Your task to perform on an android device: change alarm snooze length Image 0: 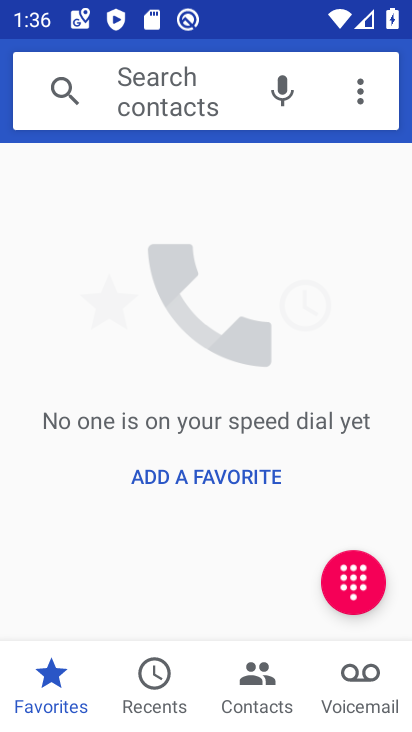
Step 0: press home button
Your task to perform on an android device: change alarm snooze length Image 1: 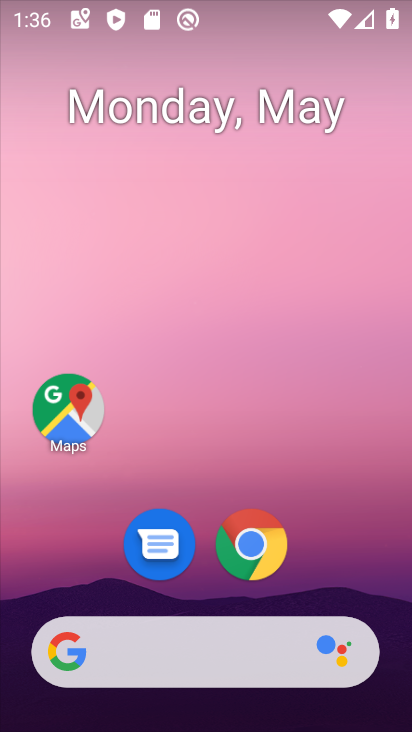
Step 1: drag from (380, 578) to (383, 213)
Your task to perform on an android device: change alarm snooze length Image 2: 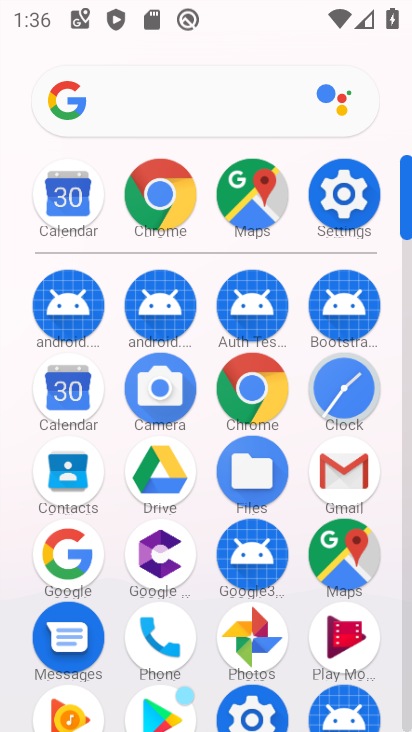
Step 2: click (371, 396)
Your task to perform on an android device: change alarm snooze length Image 3: 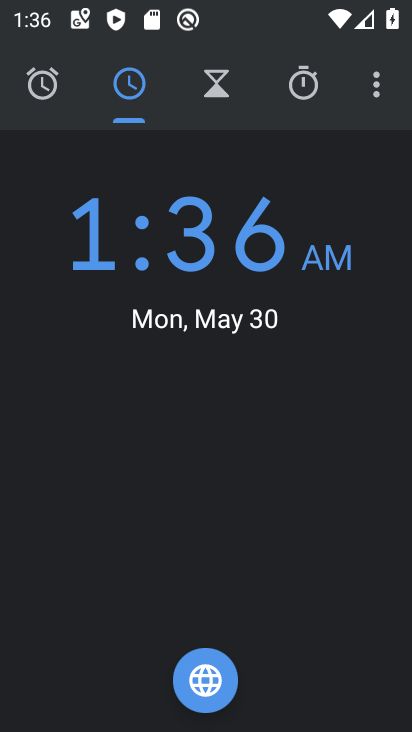
Step 3: click (378, 103)
Your task to perform on an android device: change alarm snooze length Image 4: 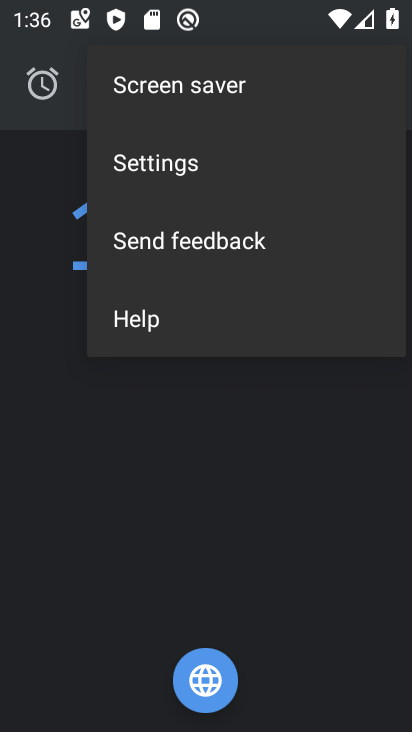
Step 4: click (222, 168)
Your task to perform on an android device: change alarm snooze length Image 5: 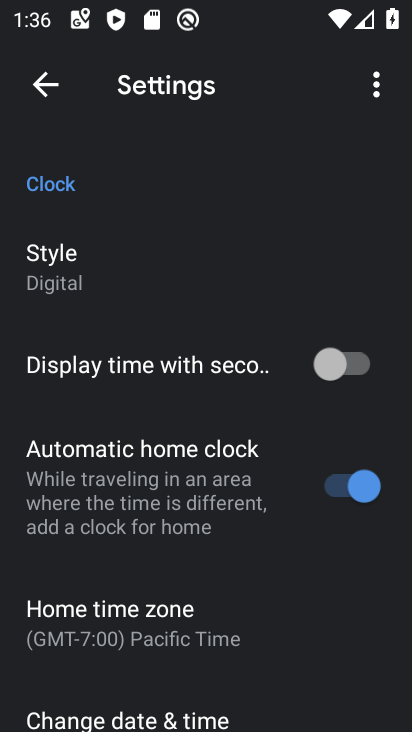
Step 5: drag from (309, 556) to (308, 473)
Your task to perform on an android device: change alarm snooze length Image 6: 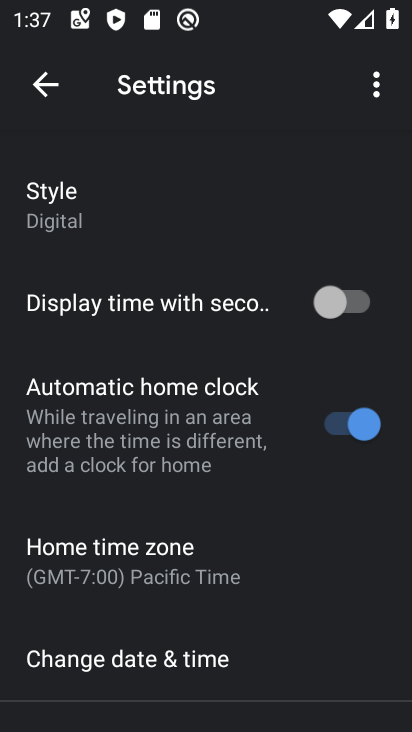
Step 6: drag from (331, 568) to (352, 466)
Your task to perform on an android device: change alarm snooze length Image 7: 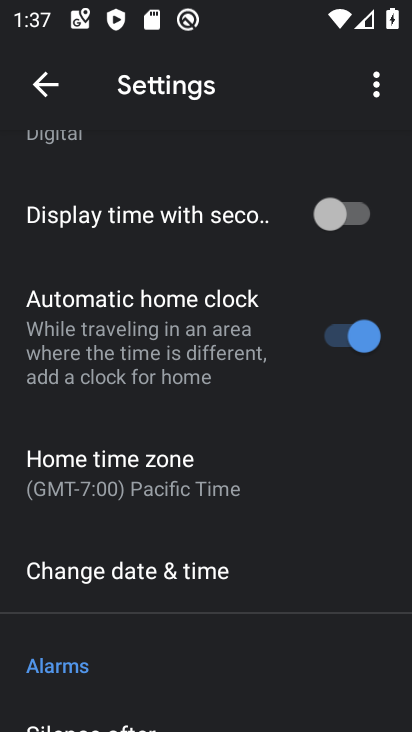
Step 7: drag from (352, 545) to (360, 469)
Your task to perform on an android device: change alarm snooze length Image 8: 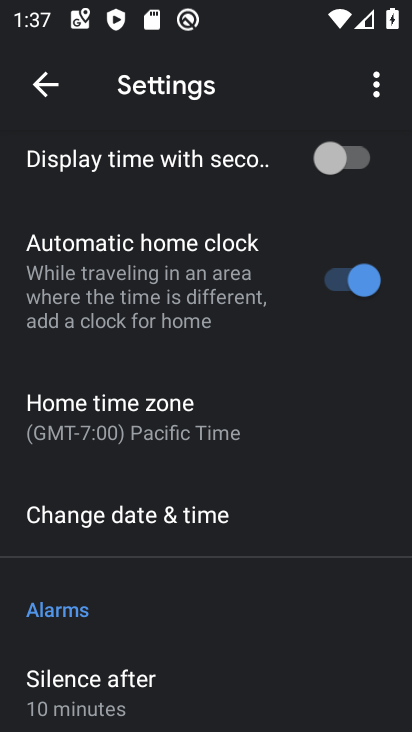
Step 8: drag from (362, 554) to (365, 424)
Your task to perform on an android device: change alarm snooze length Image 9: 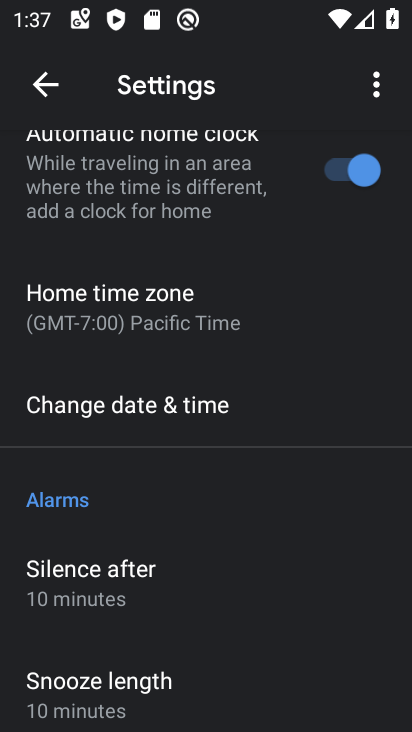
Step 9: drag from (363, 523) to (351, 377)
Your task to perform on an android device: change alarm snooze length Image 10: 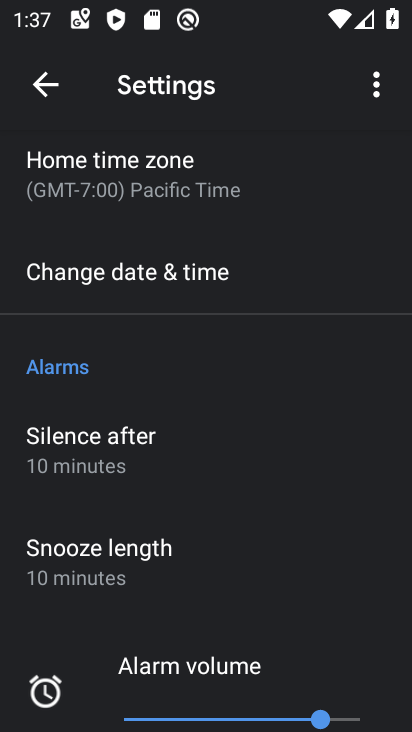
Step 10: drag from (356, 533) to (351, 398)
Your task to perform on an android device: change alarm snooze length Image 11: 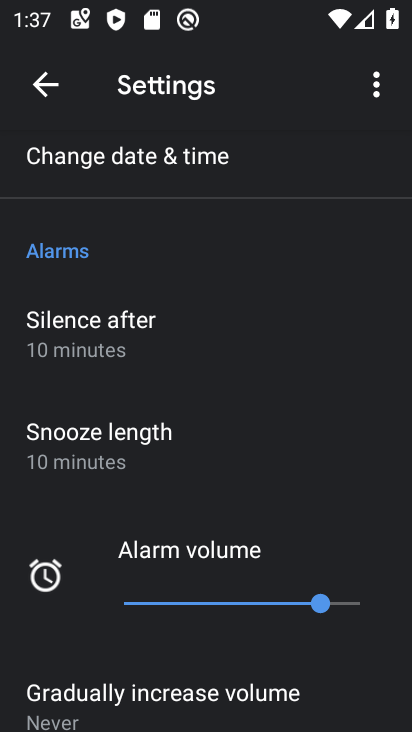
Step 11: drag from (353, 516) to (346, 396)
Your task to perform on an android device: change alarm snooze length Image 12: 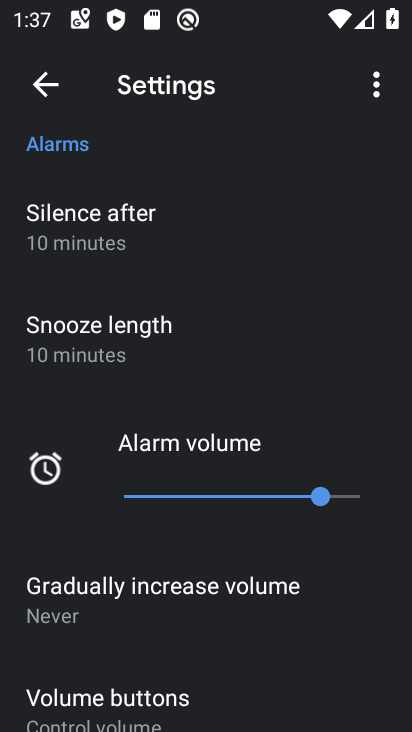
Step 12: drag from (354, 546) to (349, 403)
Your task to perform on an android device: change alarm snooze length Image 13: 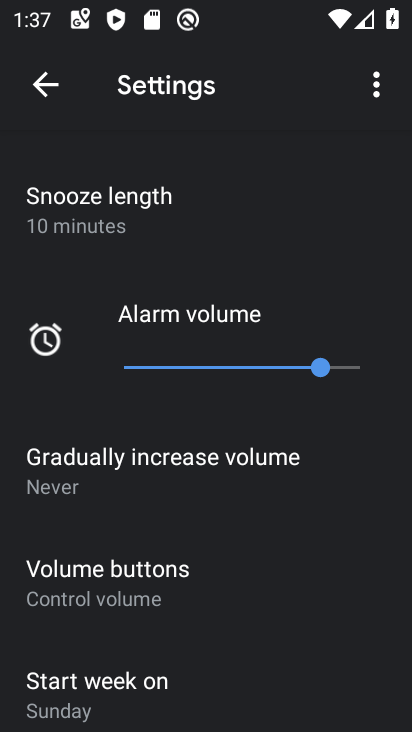
Step 13: drag from (356, 529) to (348, 405)
Your task to perform on an android device: change alarm snooze length Image 14: 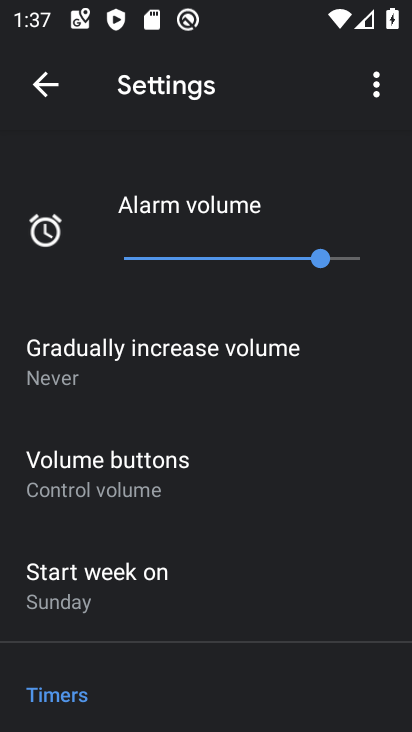
Step 14: drag from (348, 520) to (343, 353)
Your task to perform on an android device: change alarm snooze length Image 15: 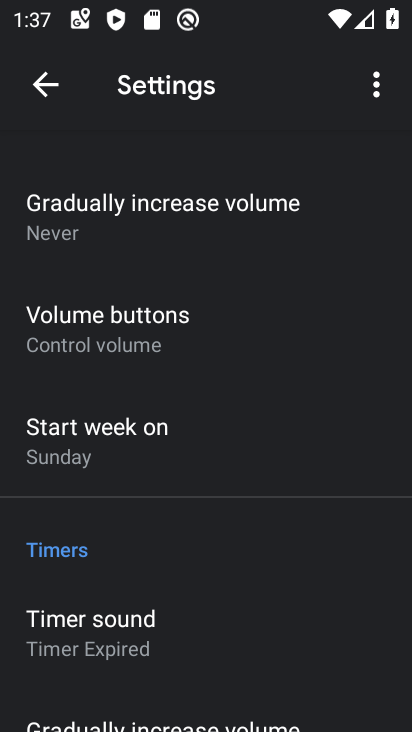
Step 15: drag from (341, 541) to (339, 408)
Your task to perform on an android device: change alarm snooze length Image 16: 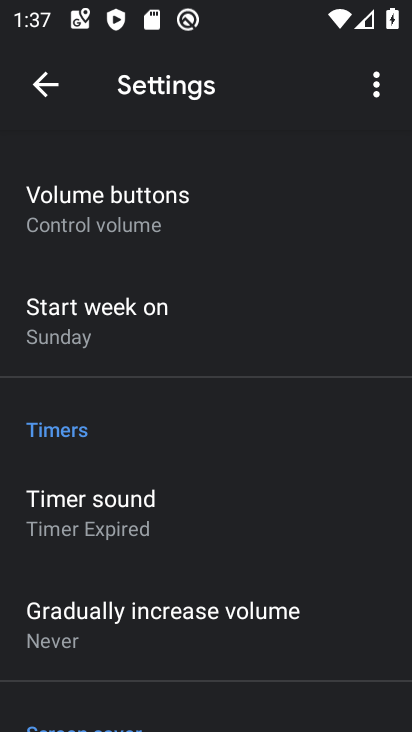
Step 16: drag from (302, 364) to (308, 453)
Your task to perform on an android device: change alarm snooze length Image 17: 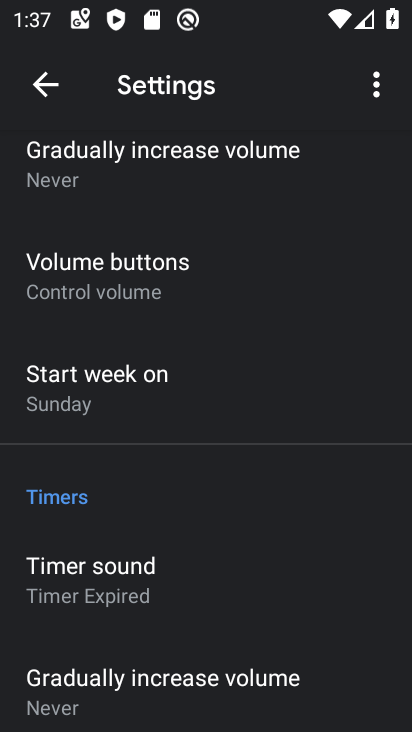
Step 17: drag from (301, 290) to (317, 470)
Your task to perform on an android device: change alarm snooze length Image 18: 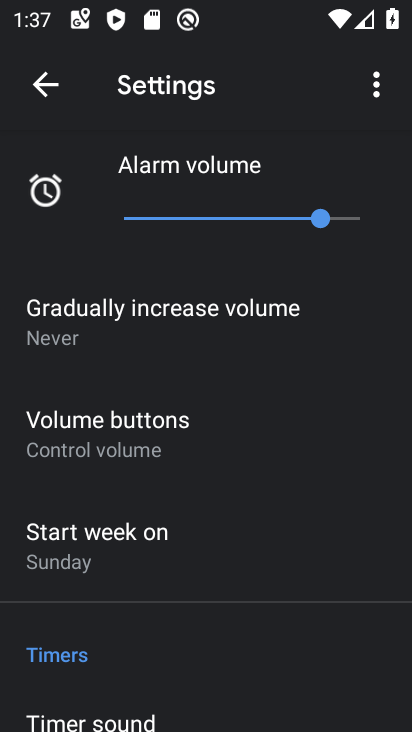
Step 18: drag from (320, 283) to (328, 465)
Your task to perform on an android device: change alarm snooze length Image 19: 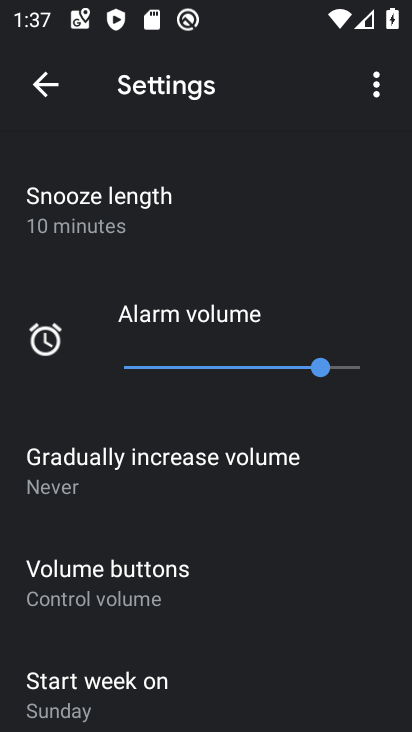
Step 19: click (101, 216)
Your task to perform on an android device: change alarm snooze length Image 20: 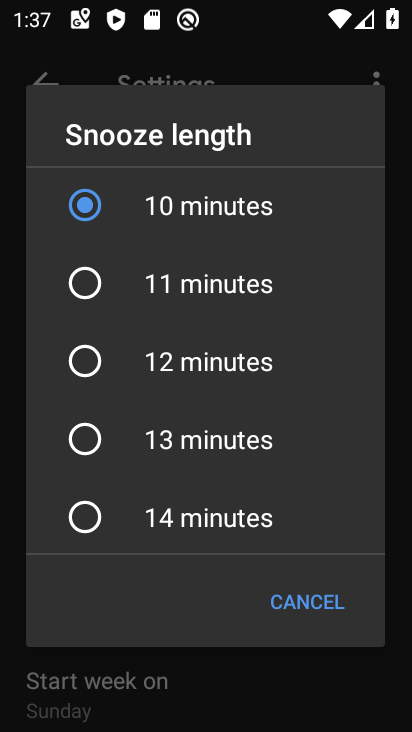
Step 20: click (194, 442)
Your task to perform on an android device: change alarm snooze length Image 21: 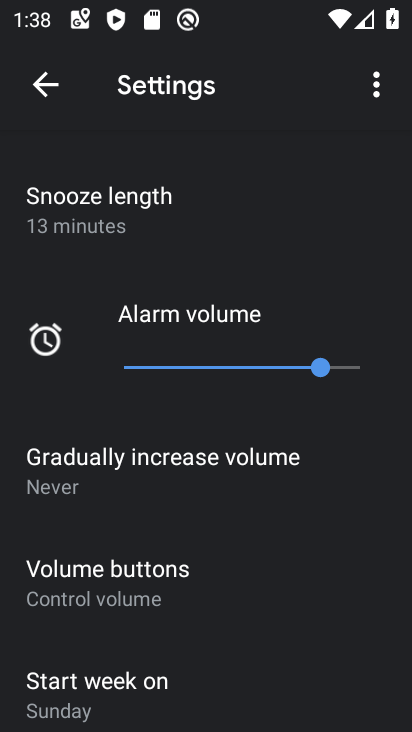
Step 21: task complete